Your task to perform on an android device: add a label to a message in the gmail app Image 0: 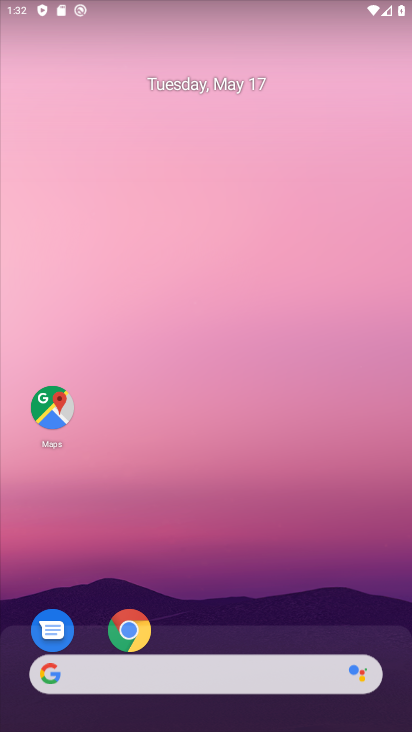
Step 0: drag from (258, 611) to (277, 204)
Your task to perform on an android device: add a label to a message in the gmail app Image 1: 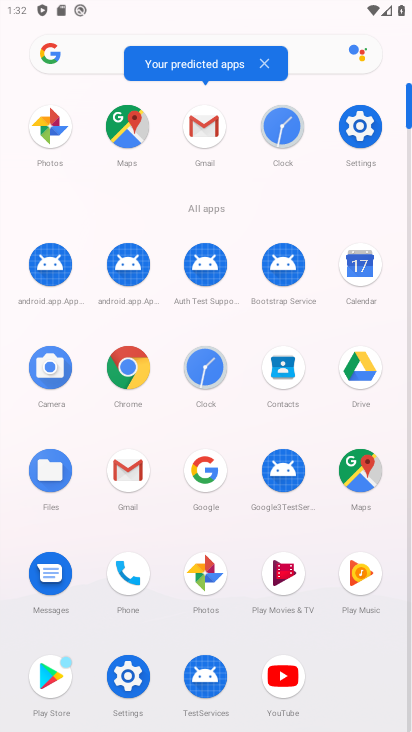
Step 1: click (121, 478)
Your task to perform on an android device: add a label to a message in the gmail app Image 2: 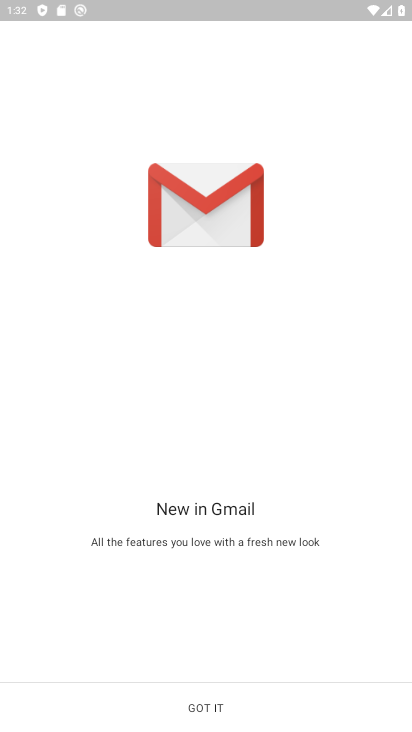
Step 2: click (197, 724)
Your task to perform on an android device: add a label to a message in the gmail app Image 3: 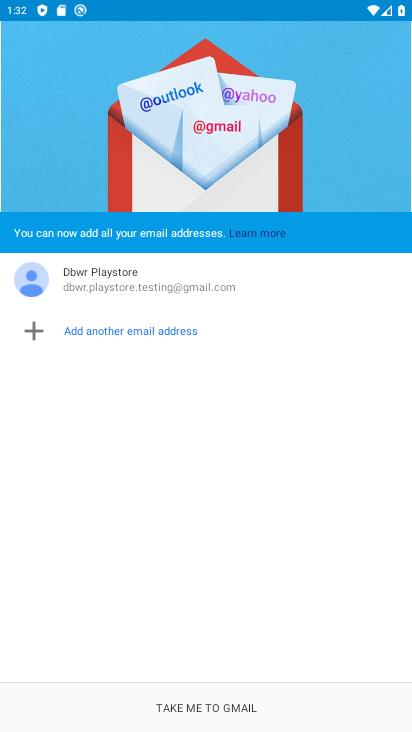
Step 3: click (197, 709)
Your task to perform on an android device: add a label to a message in the gmail app Image 4: 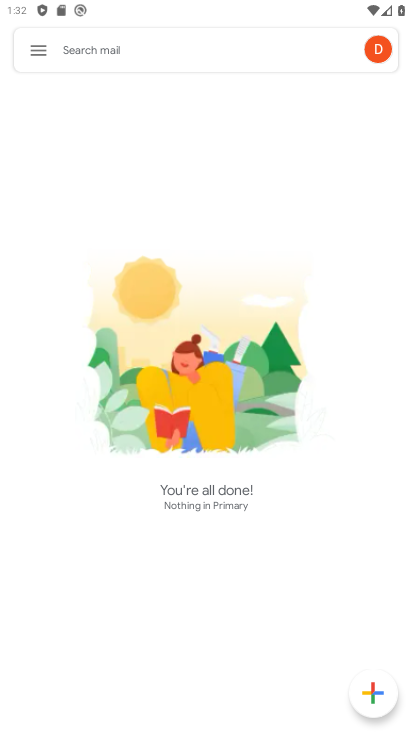
Step 4: click (44, 52)
Your task to perform on an android device: add a label to a message in the gmail app Image 5: 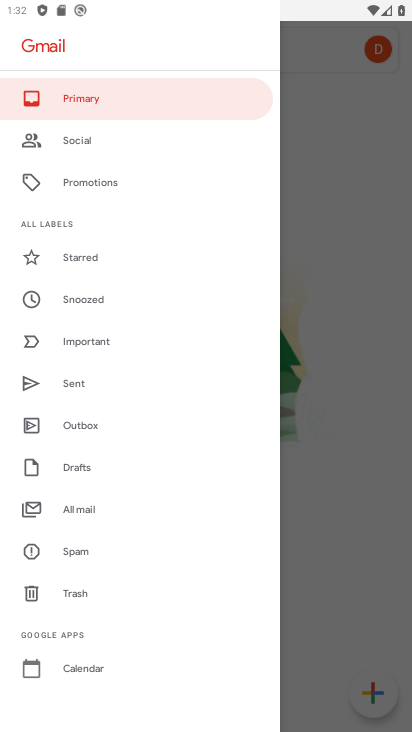
Step 5: click (121, 506)
Your task to perform on an android device: add a label to a message in the gmail app Image 6: 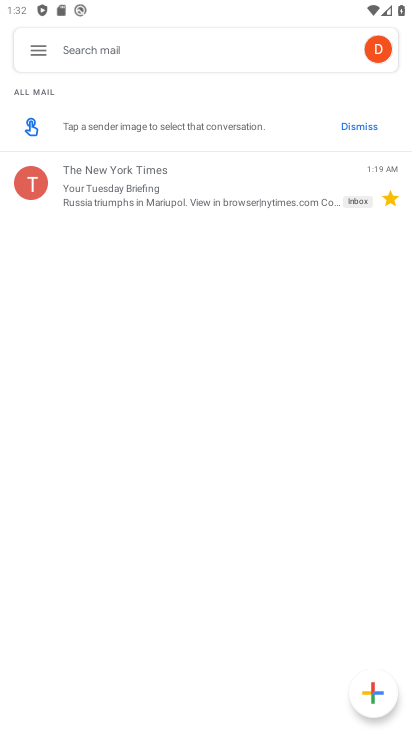
Step 6: click (316, 186)
Your task to perform on an android device: add a label to a message in the gmail app Image 7: 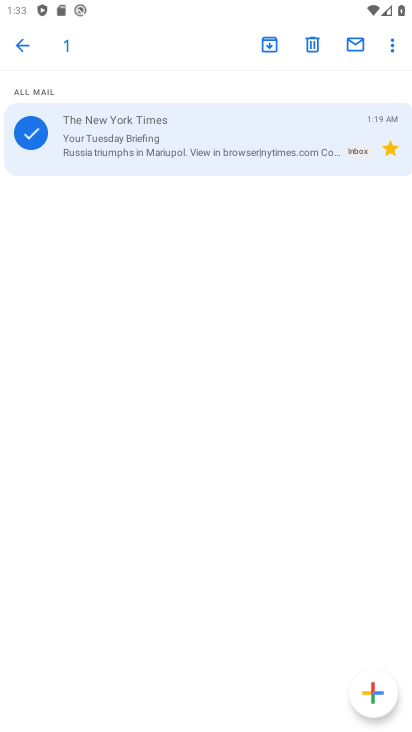
Step 7: click (388, 58)
Your task to perform on an android device: add a label to a message in the gmail app Image 8: 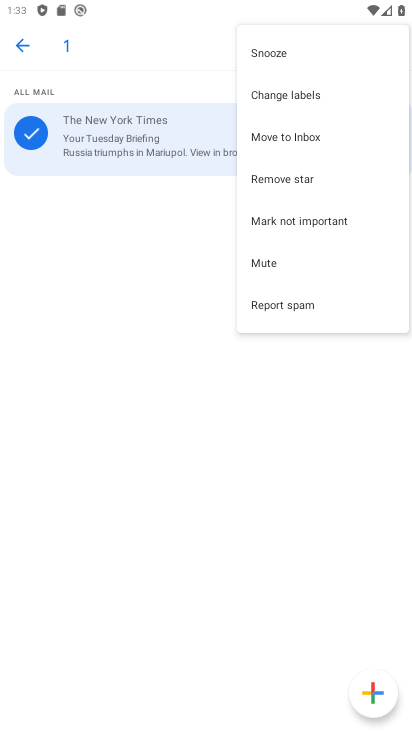
Step 8: click (297, 53)
Your task to perform on an android device: add a label to a message in the gmail app Image 9: 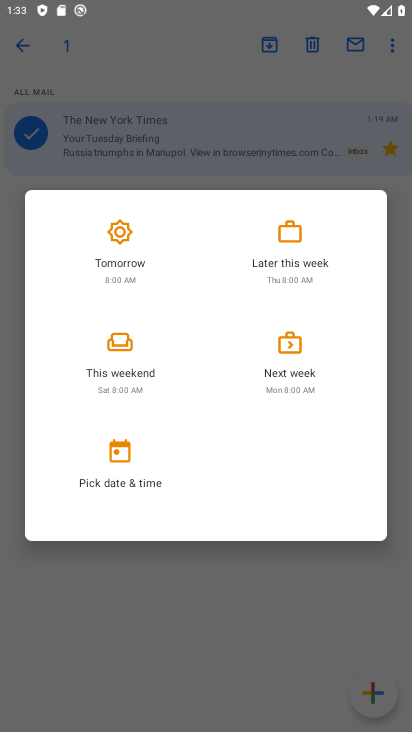
Step 9: click (110, 242)
Your task to perform on an android device: add a label to a message in the gmail app Image 10: 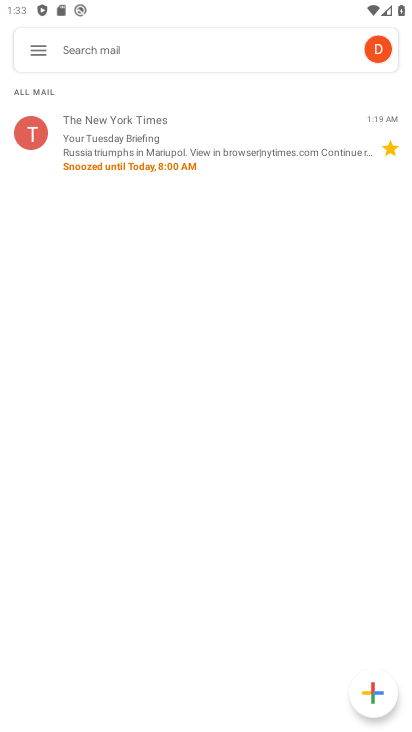
Step 10: task complete